Your task to perform on an android device: turn on translation in the chrome app Image 0: 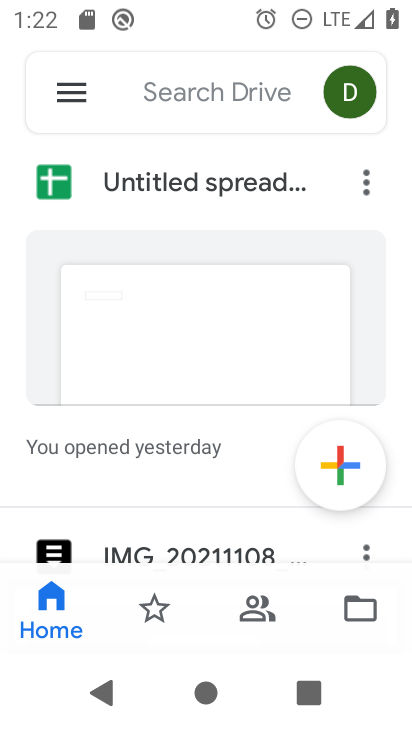
Step 0: press home button
Your task to perform on an android device: turn on translation in the chrome app Image 1: 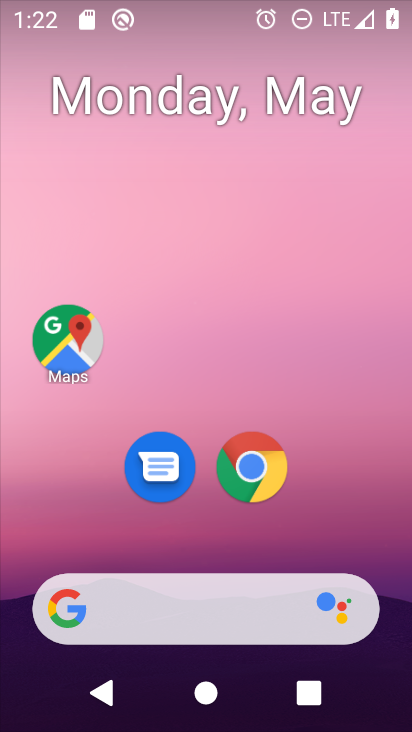
Step 1: click (264, 484)
Your task to perform on an android device: turn on translation in the chrome app Image 2: 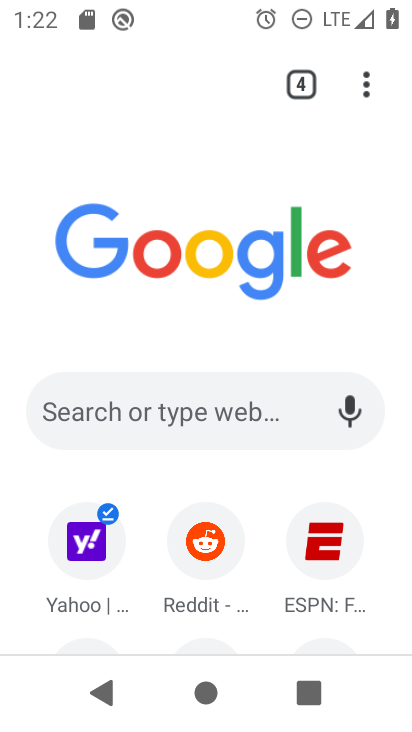
Step 2: click (368, 91)
Your task to perform on an android device: turn on translation in the chrome app Image 3: 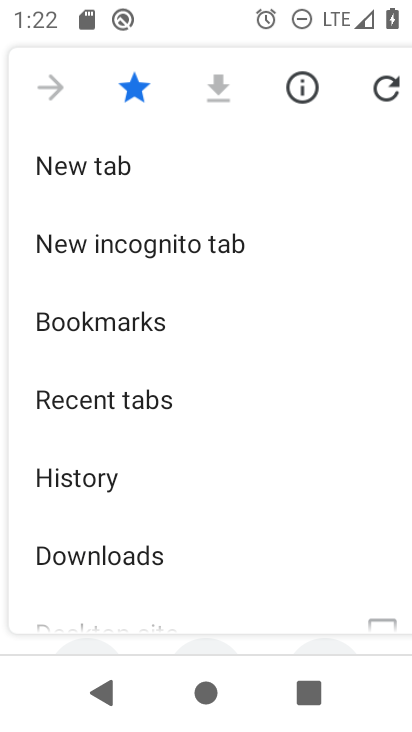
Step 3: drag from (211, 457) to (204, 111)
Your task to perform on an android device: turn on translation in the chrome app Image 4: 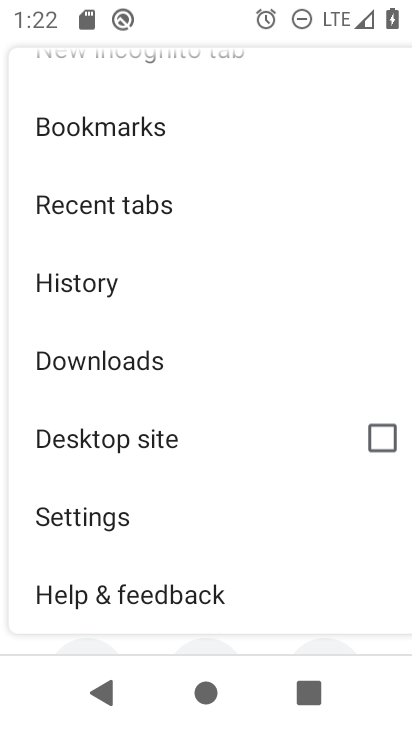
Step 4: click (111, 524)
Your task to perform on an android device: turn on translation in the chrome app Image 5: 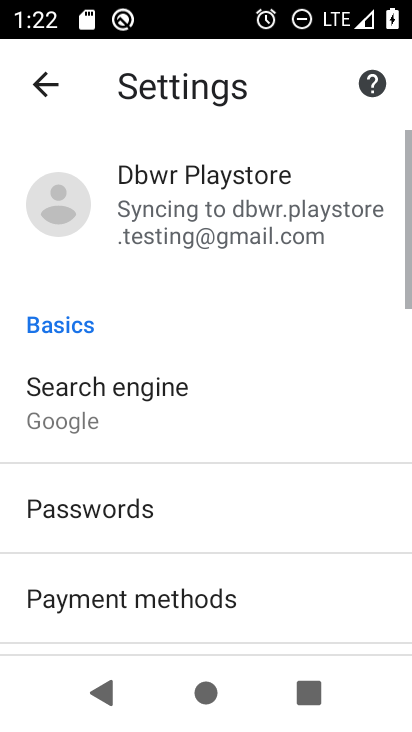
Step 5: drag from (196, 547) to (209, 109)
Your task to perform on an android device: turn on translation in the chrome app Image 6: 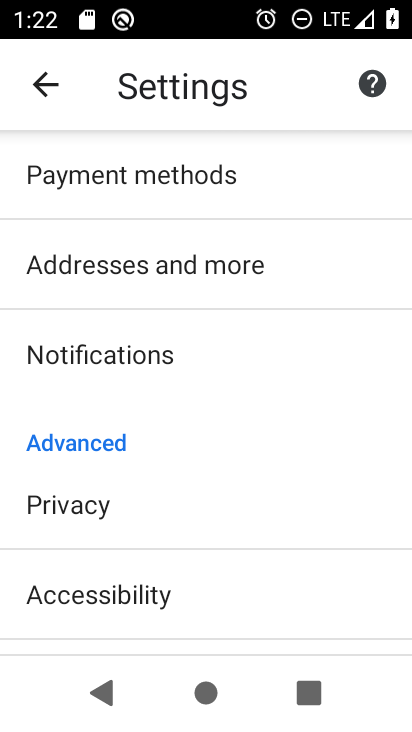
Step 6: drag from (198, 377) to (198, 166)
Your task to perform on an android device: turn on translation in the chrome app Image 7: 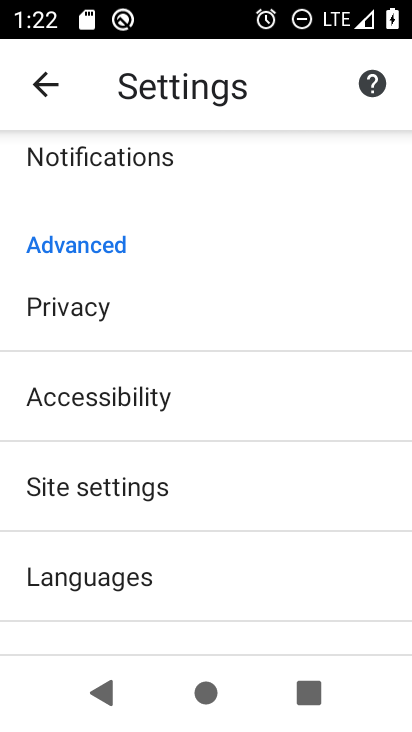
Step 7: click (112, 574)
Your task to perform on an android device: turn on translation in the chrome app Image 8: 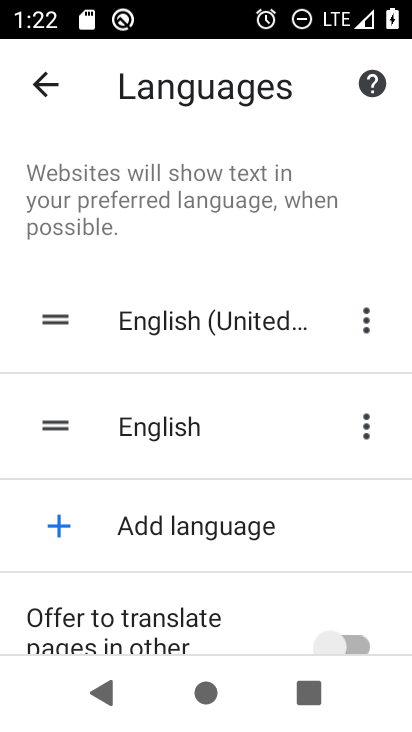
Step 8: drag from (184, 570) to (191, 241)
Your task to perform on an android device: turn on translation in the chrome app Image 9: 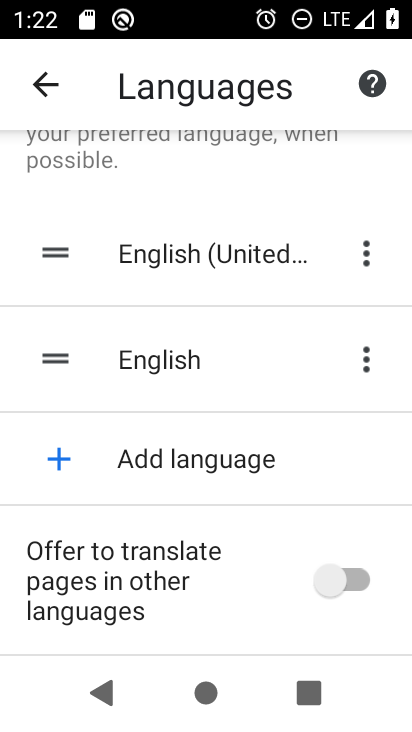
Step 9: click (317, 581)
Your task to perform on an android device: turn on translation in the chrome app Image 10: 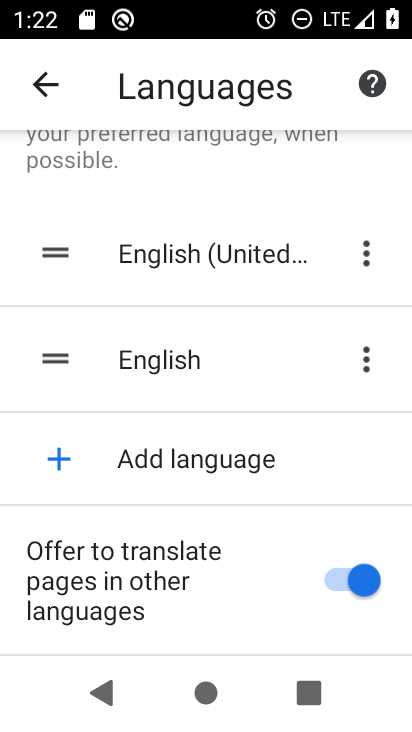
Step 10: task complete